Your task to perform on an android device: turn on showing notifications on the lock screen Image 0: 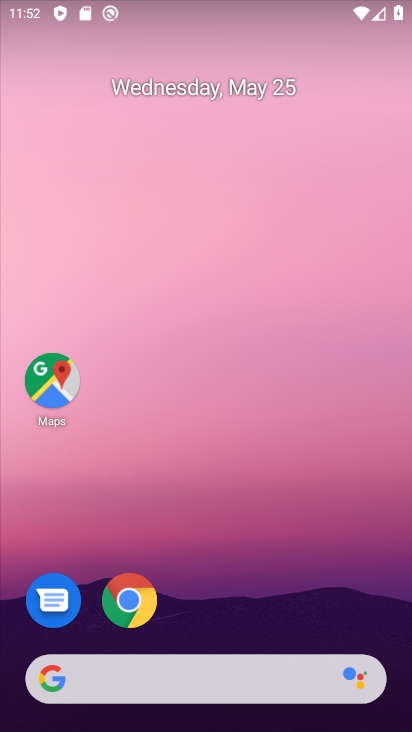
Step 0: drag from (323, 446) to (329, 131)
Your task to perform on an android device: turn on showing notifications on the lock screen Image 1: 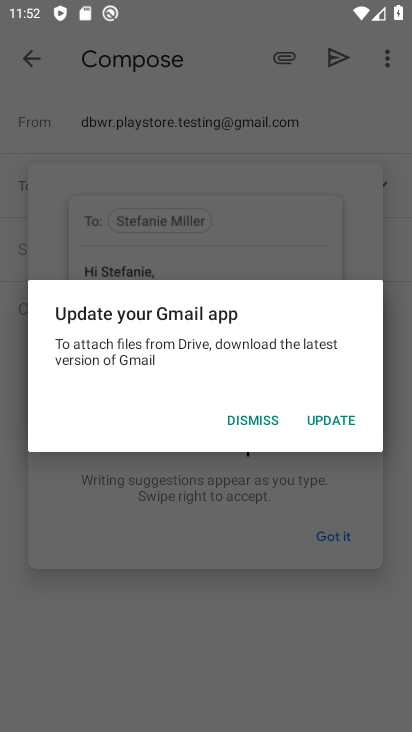
Step 1: press home button
Your task to perform on an android device: turn on showing notifications on the lock screen Image 2: 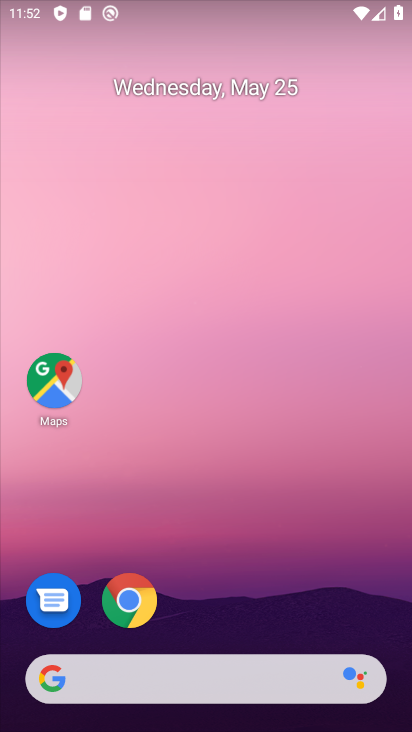
Step 2: drag from (300, 574) to (283, 136)
Your task to perform on an android device: turn on showing notifications on the lock screen Image 3: 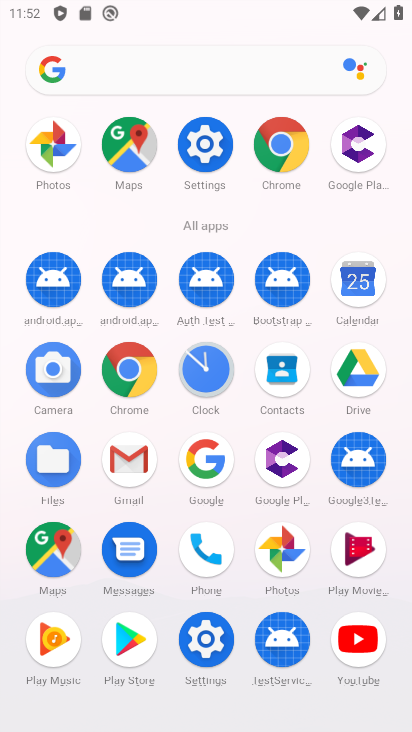
Step 3: click (206, 153)
Your task to perform on an android device: turn on showing notifications on the lock screen Image 4: 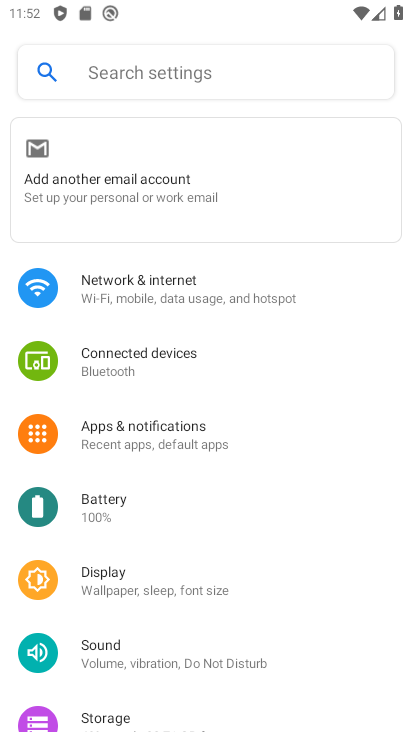
Step 4: click (137, 426)
Your task to perform on an android device: turn on showing notifications on the lock screen Image 5: 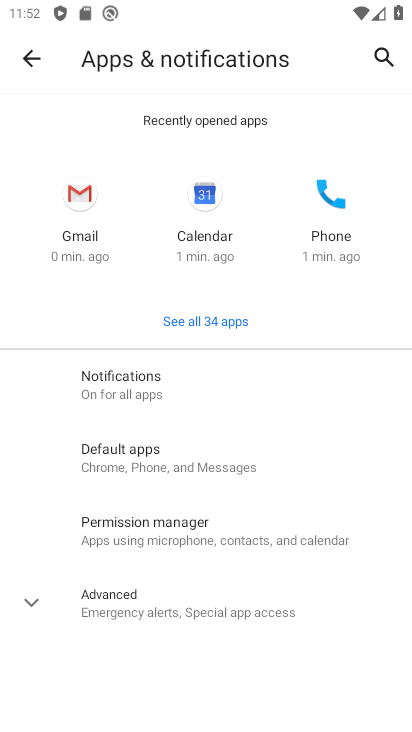
Step 5: click (144, 396)
Your task to perform on an android device: turn on showing notifications on the lock screen Image 6: 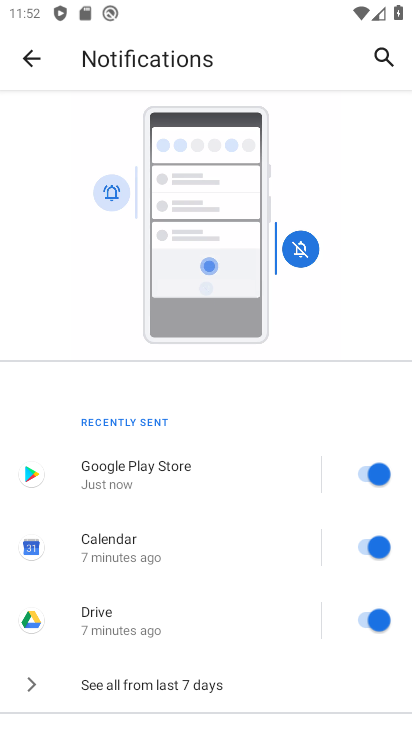
Step 6: drag from (186, 599) to (301, 175)
Your task to perform on an android device: turn on showing notifications on the lock screen Image 7: 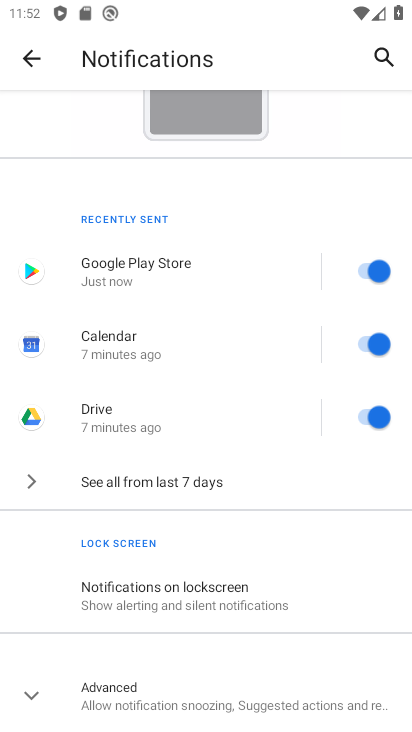
Step 7: click (175, 592)
Your task to perform on an android device: turn on showing notifications on the lock screen Image 8: 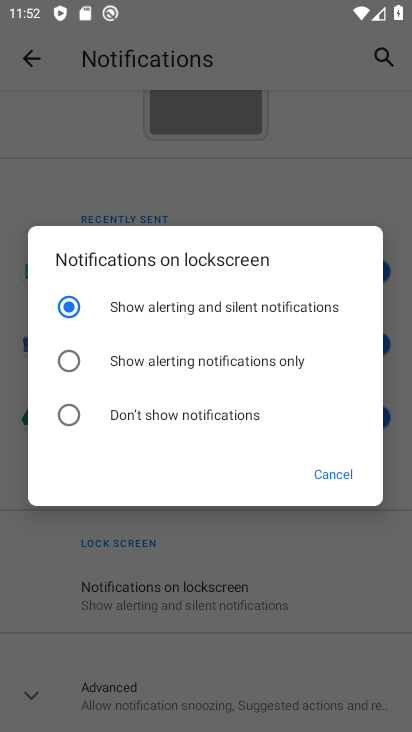
Step 8: click (220, 363)
Your task to perform on an android device: turn on showing notifications on the lock screen Image 9: 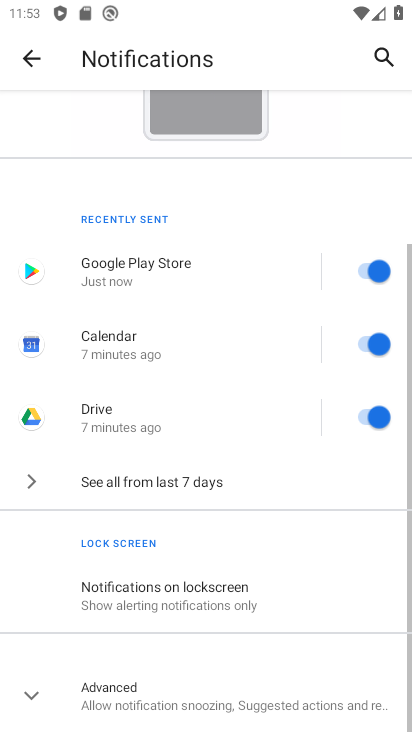
Step 9: task complete